Your task to perform on an android device: Show me popular games on the Play Store Image 0: 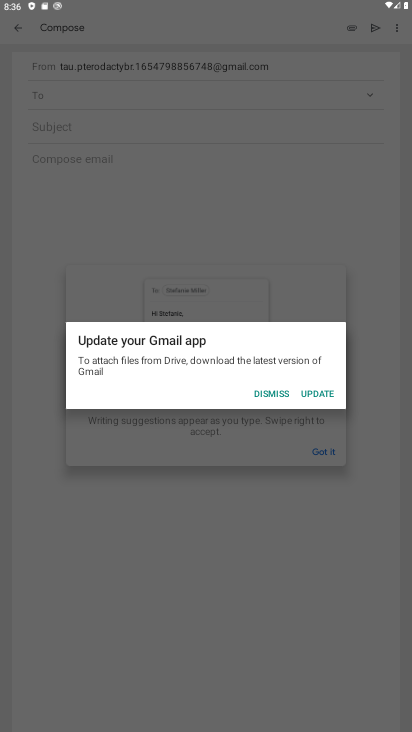
Step 0: press home button
Your task to perform on an android device: Show me popular games on the Play Store Image 1: 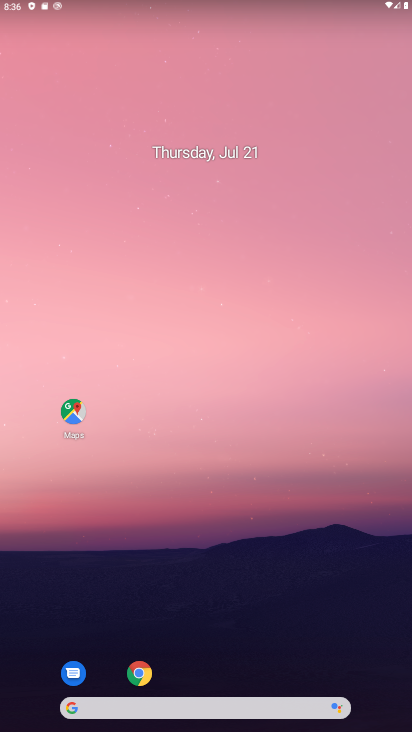
Step 1: drag from (227, 702) to (205, 81)
Your task to perform on an android device: Show me popular games on the Play Store Image 2: 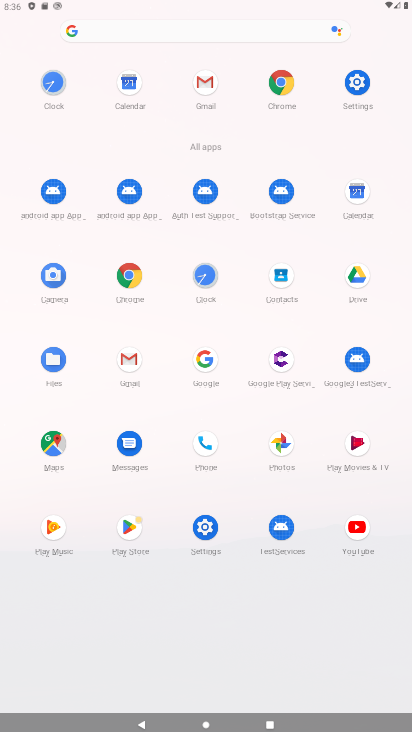
Step 2: click (129, 528)
Your task to perform on an android device: Show me popular games on the Play Store Image 3: 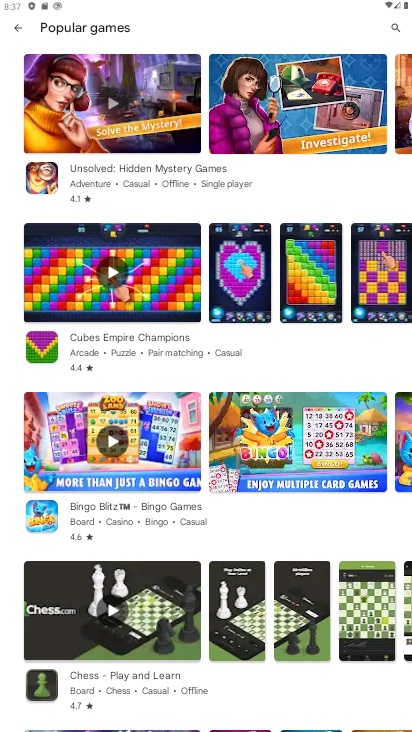
Step 3: task complete